Your task to perform on an android device: Open wifi settings Image 0: 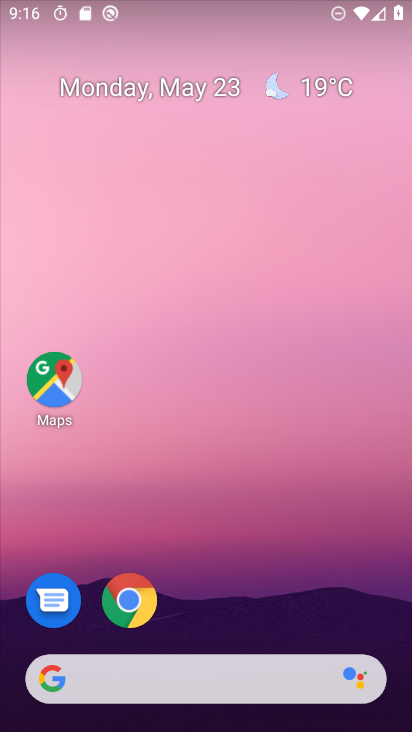
Step 0: press home button
Your task to perform on an android device: Open wifi settings Image 1: 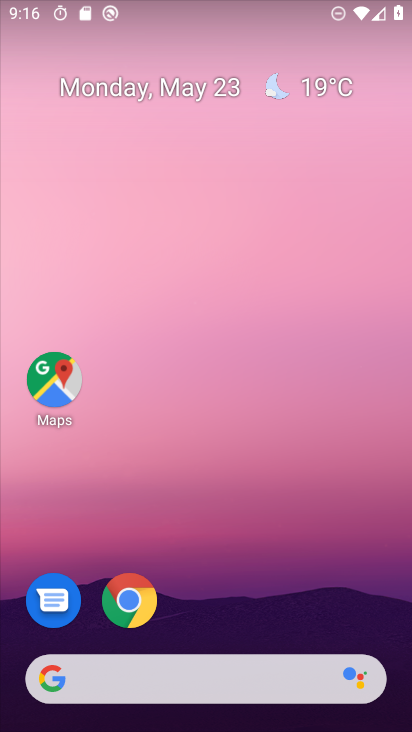
Step 1: drag from (58, 0) to (82, 444)
Your task to perform on an android device: Open wifi settings Image 2: 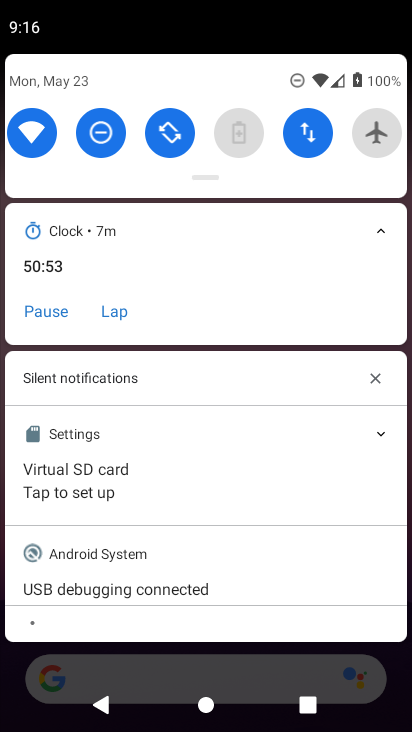
Step 2: click (30, 137)
Your task to perform on an android device: Open wifi settings Image 3: 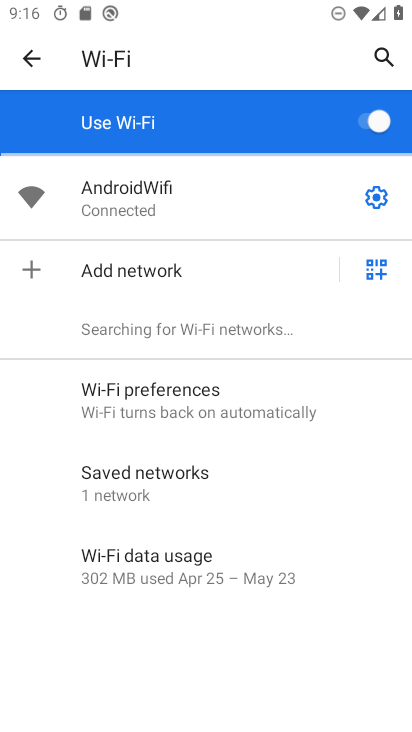
Step 3: click (370, 199)
Your task to perform on an android device: Open wifi settings Image 4: 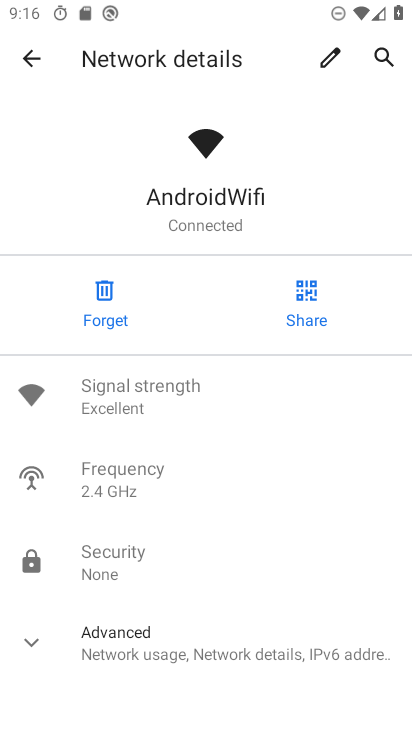
Step 4: task complete